Your task to perform on an android device: Open calendar and show me the second week of next month Image 0: 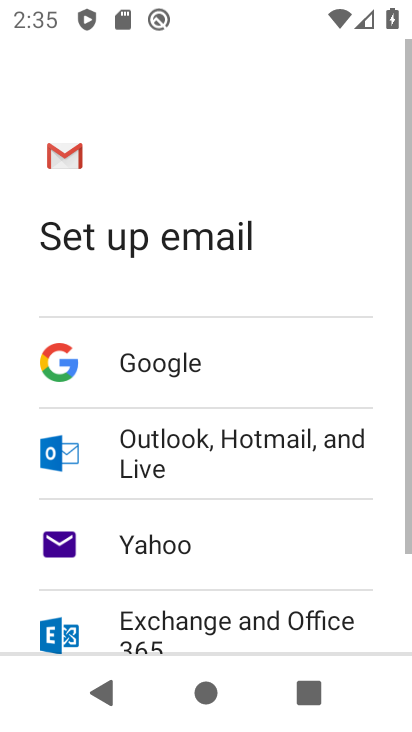
Step 0: press home button
Your task to perform on an android device: Open calendar and show me the second week of next month Image 1: 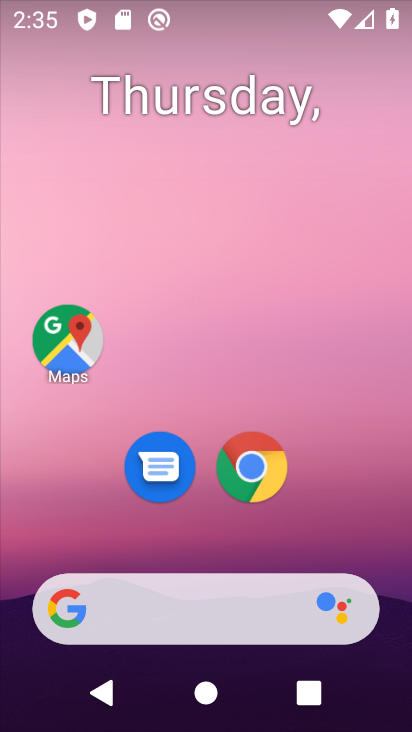
Step 1: drag from (221, 614) to (302, 89)
Your task to perform on an android device: Open calendar and show me the second week of next month Image 2: 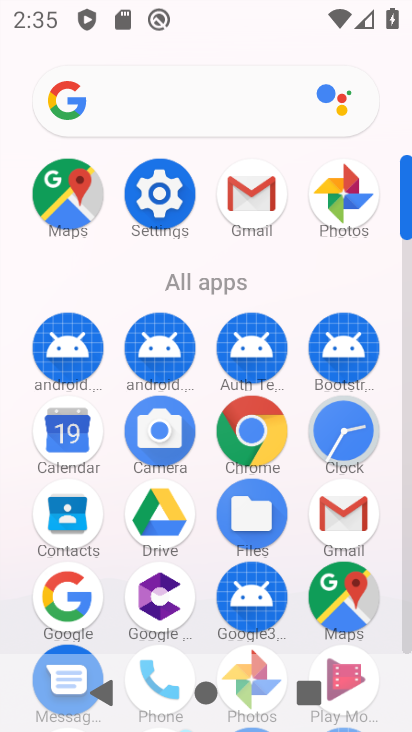
Step 2: click (81, 426)
Your task to perform on an android device: Open calendar and show me the second week of next month Image 3: 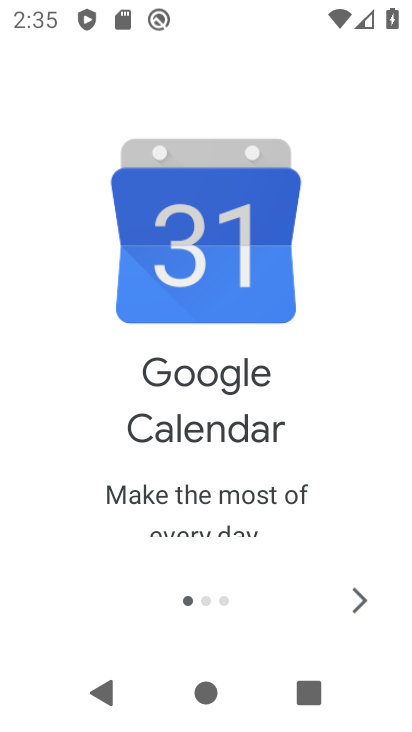
Step 3: click (361, 589)
Your task to perform on an android device: Open calendar and show me the second week of next month Image 4: 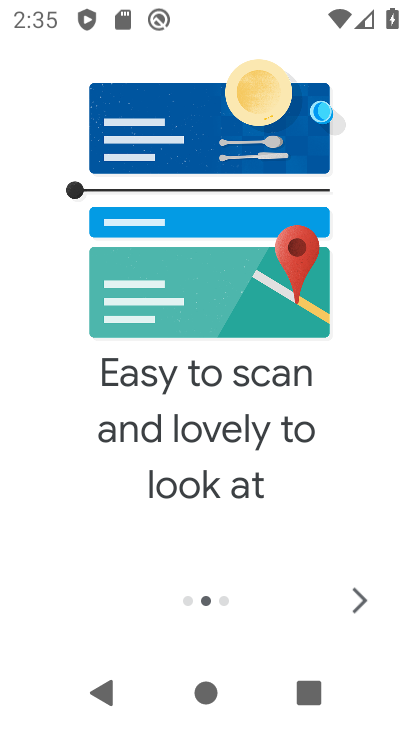
Step 4: click (371, 600)
Your task to perform on an android device: Open calendar and show me the second week of next month Image 5: 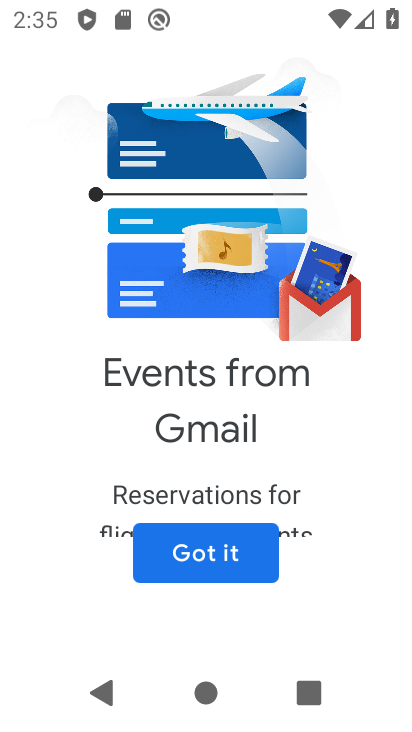
Step 5: click (182, 510)
Your task to perform on an android device: Open calendar and show me the second week of next month Image 6: 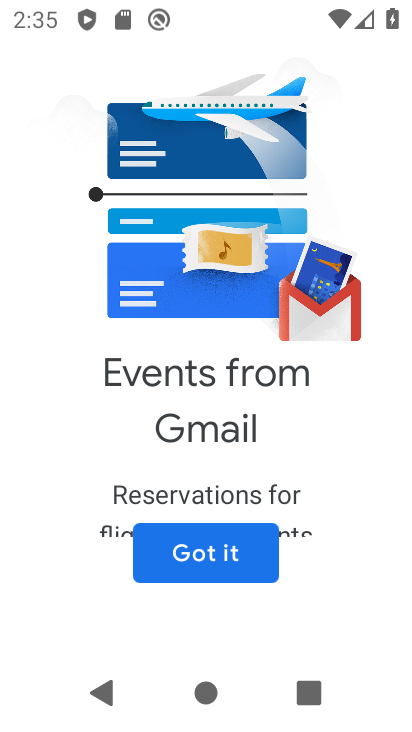
Step 6: click (194, 560)
Your task to perform on an android device: Open calendar and show me the second week of next month Image 7: 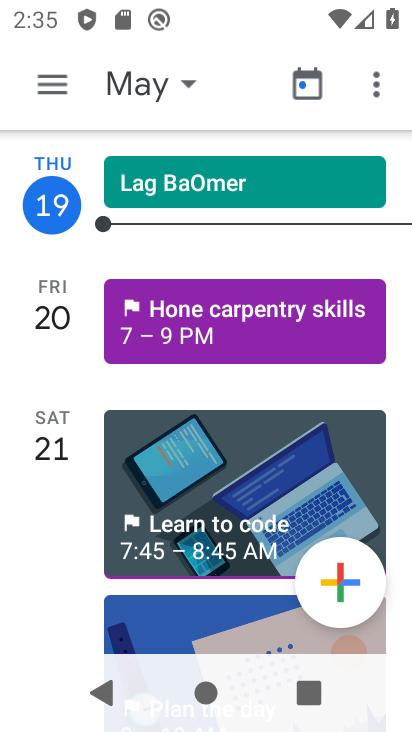
Step 7: click (50, 96)
Your task to perform on an android device: Open calendar and show me the second week of next month Image 8: 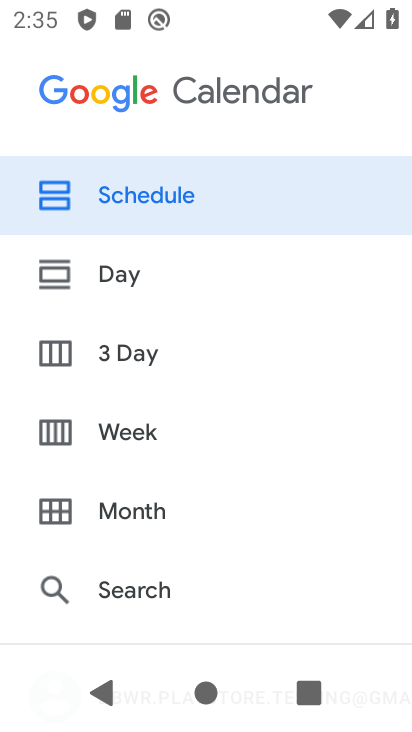
Step 8: click (152, 503)
Your task to perform on an android device: Open calendar and show me the second week of next month Image 9: 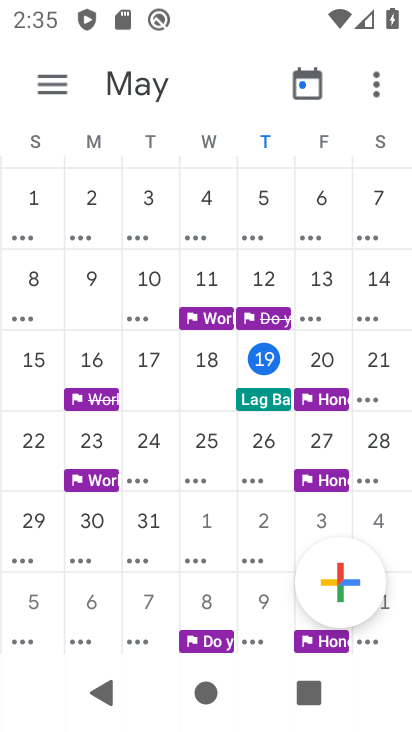
Step 9: task complete